Your task to perform on an android device: create a new album in the google photos Image 0: 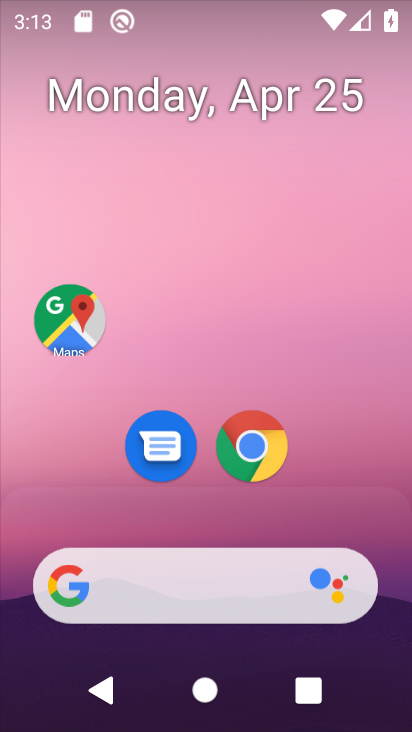
Step 0: drag from (185, 467) to (157, 82)
Your task to perform on an android device: create a new album in the google photos Image 1: 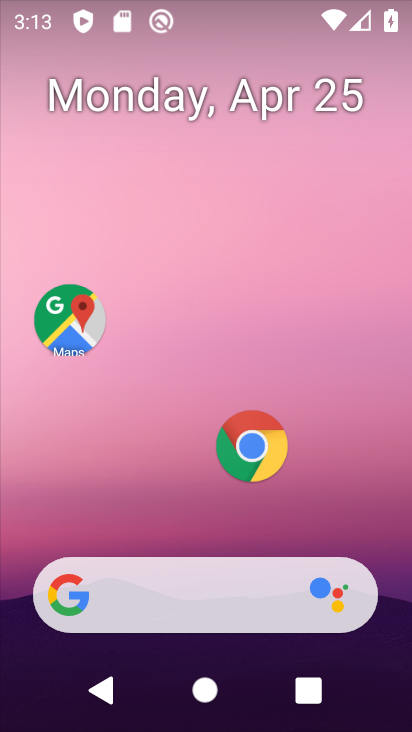
Step 1: click (117, 453)
Your task to perform on an android device: create a new album in the google photos Image 2: 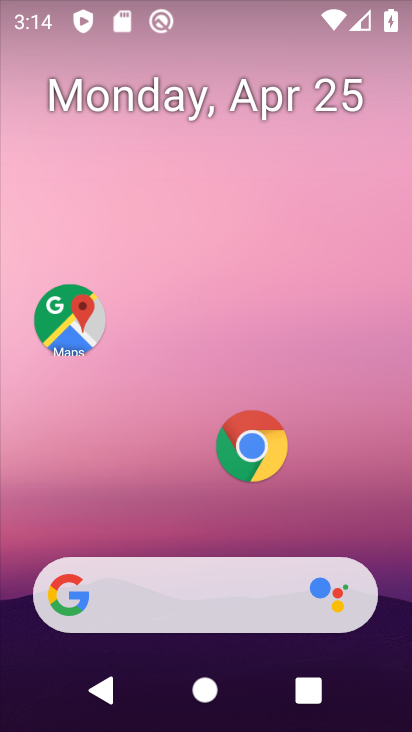
Step 2: drag from (157, 528) to (188, 185)
Your task to perform on an android device: create a new album in the google photos Image 3: 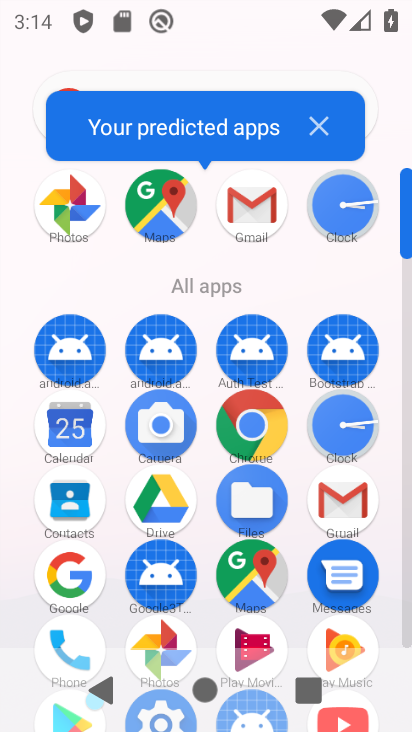
Step 3: click (66, 187)
Your task to perform on an android device: create a new album in the google photos Image 4: 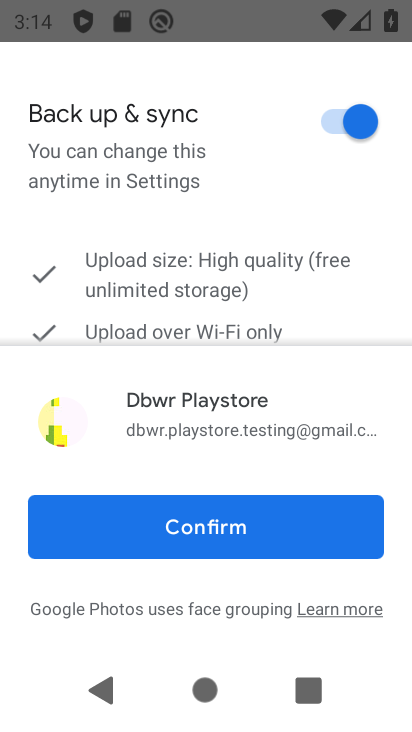
Step 4: click (191, 494)
Your task to perform on an android device: create a new album in the google photos Image 5: 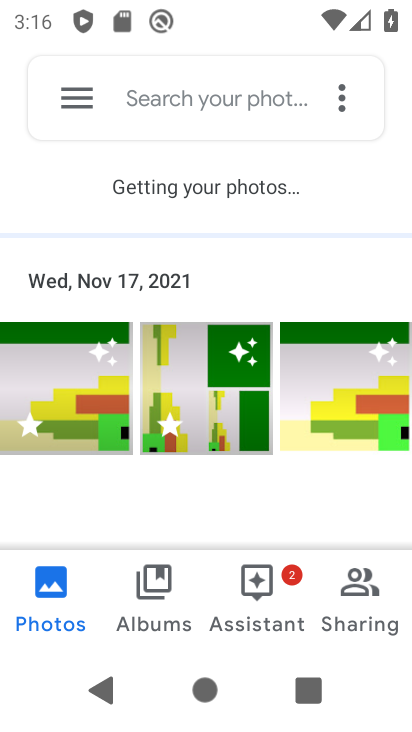
Step 5: click (116, 413)
Your task to perform on an android device: create a new album in the google photos Image 6: 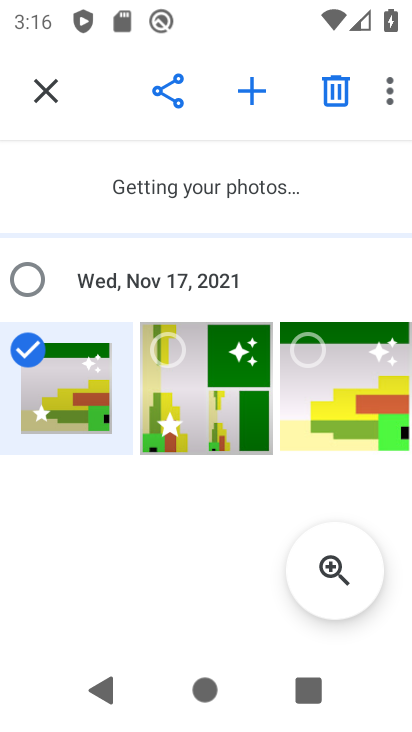
Step 6: click (161, 338)
Your task to perform on an android device: create a new album in the google photos Image 7: 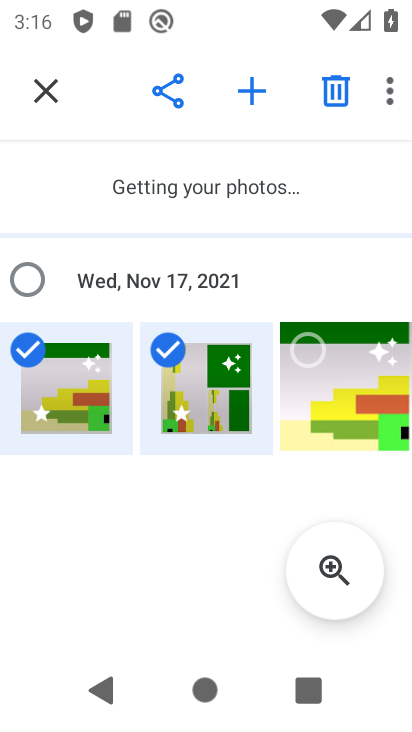
Step 7: click (253, 79)
Your task to perform on an android device: create a new album in the google photos Image 8: 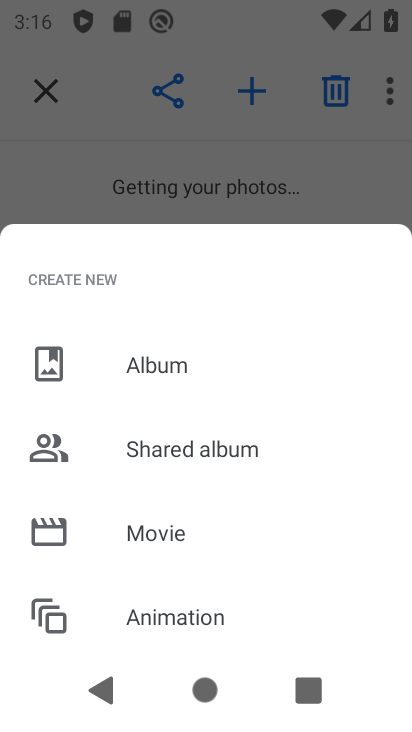
Step 8: click (148, 350)
Your task to perform on an android device: create a new album in the google photos Image 9: 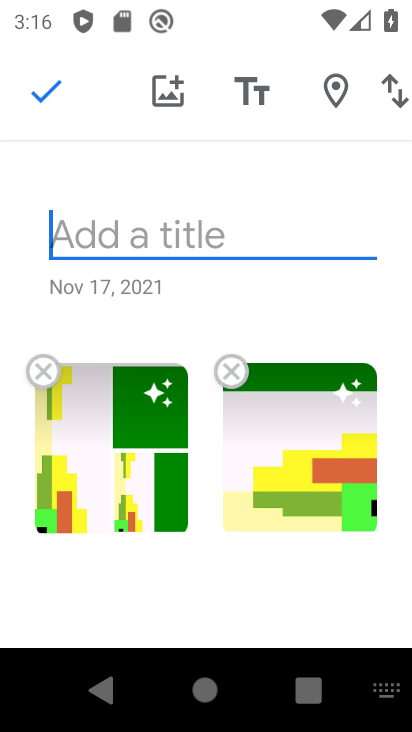
Step 9: type "vg"
Your task to perform on an android device: create a new album in the google photos Image 10: 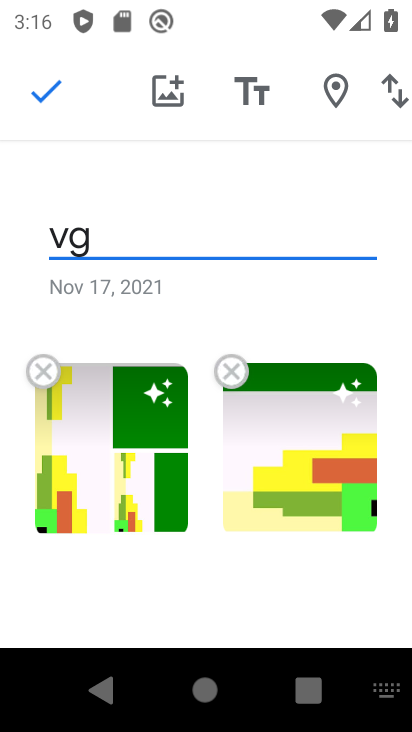
Step 10: click (65, 97)
Your task to perform on an android device: create a new album in the google photos Image 11: 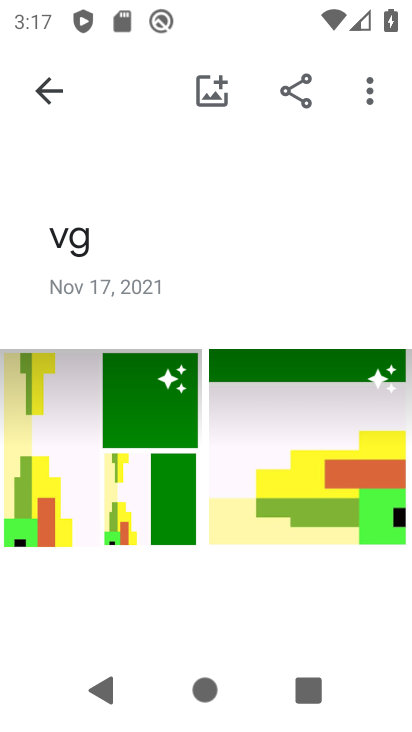
Step 11: task complete